Your task to perform on an android device: Search for vegetarian restaurants on Maps Image 0: 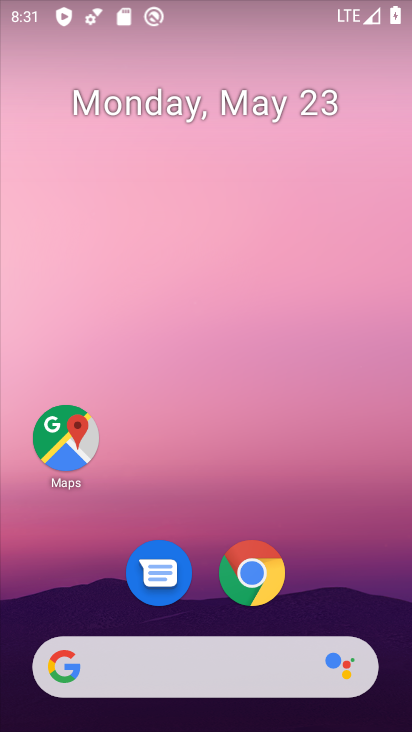
Step 0: click (81, 447)
Your task to perform on an android device: Search for vegetarian restaurants on Maps Image 1: 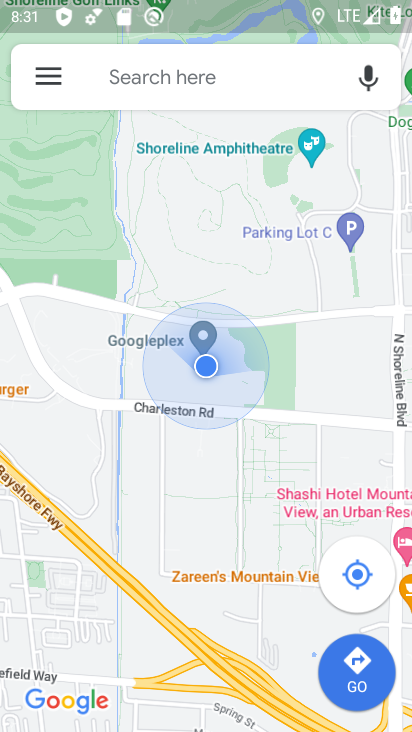
Step 1: click (266, 75)
Your task to perform on an android device: Search for vegetarian restaurants on Maps Image 2: 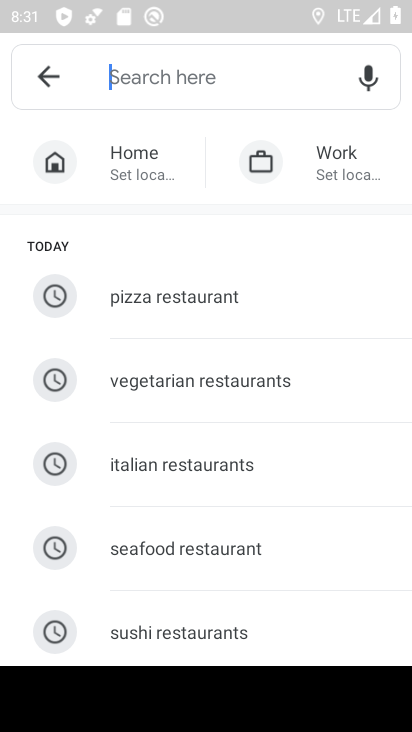
Step 2: click (171, 370)
Your task to perform on an android device: Search for vegetarian restaurants on Maps Image 3: 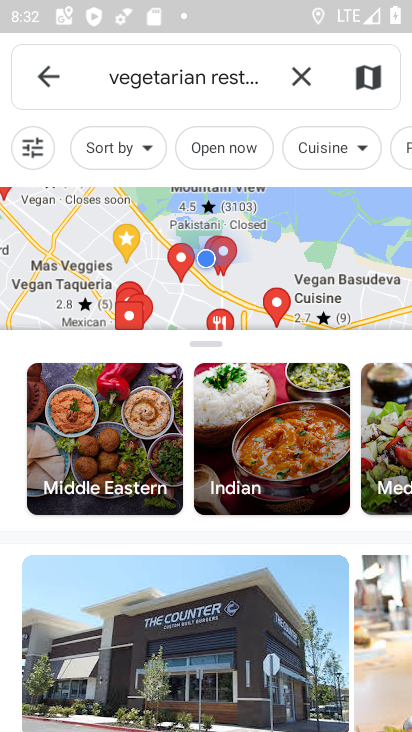
Step 3: task complete